Your task to perform on an android device: Do I have any events today? Image 0: 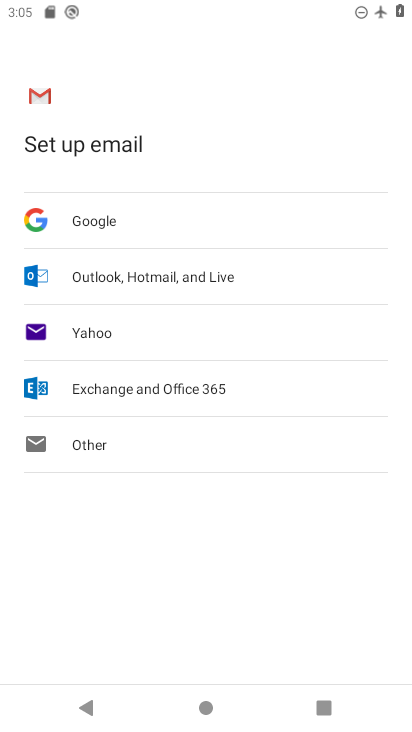
Step 0: press home button
Your task to perform on an android device: Do I have any events today? Image 1: 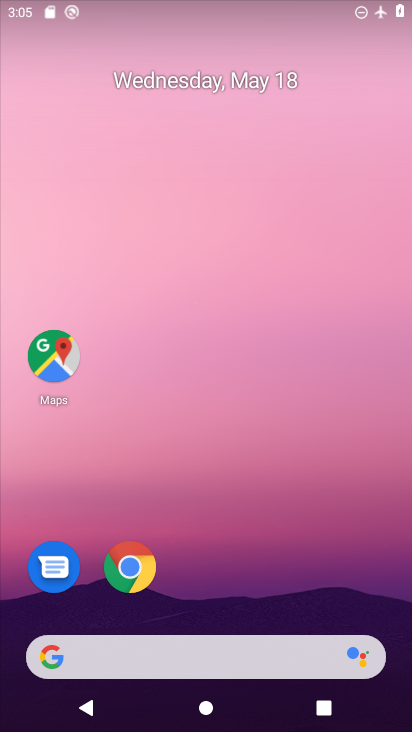
Step 1: drag from (208, 598) to (212, 192)
Your task to perform on an android device: Do I have any events today? Image 2: 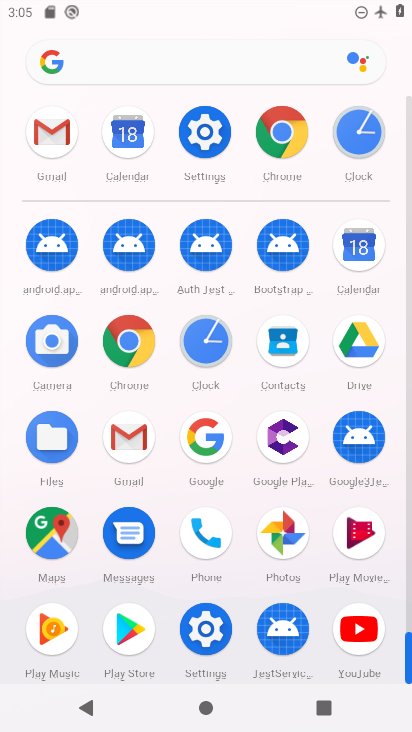
Step 2: click (372, 257)
Your task to perform on an android device: Do I have any events today? Image 3: 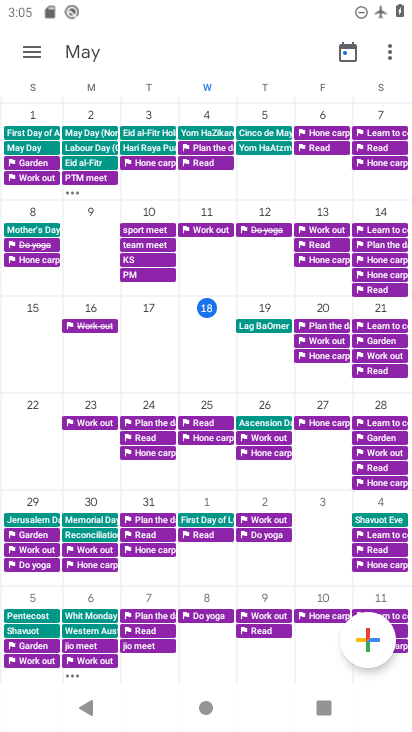
Step 3: click (30, 38)
Your task to perform on an android device: Do I have any events today? Image 4: 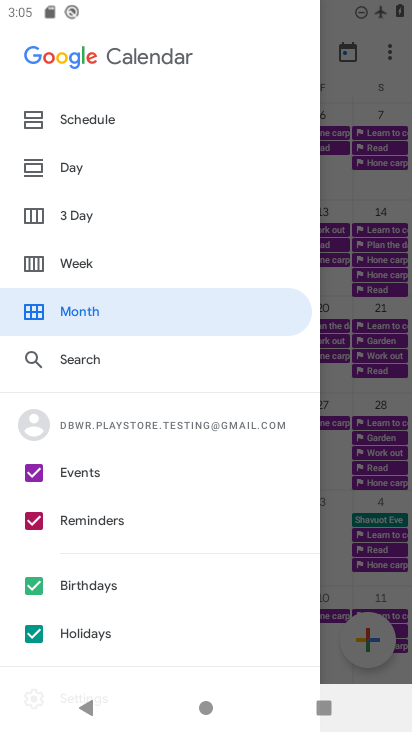
Step 4: click (95, 175)
Your task to perform on an android device: Do I have any events today? Image 5: 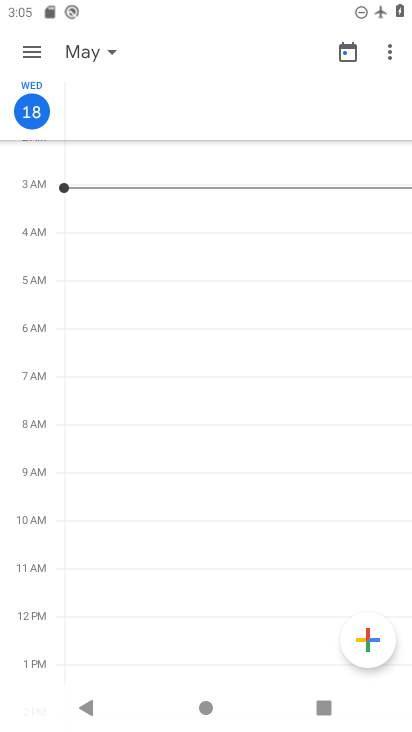
Step 5: task complete